Your task to perform on an android device: Go to network settings Image 0: 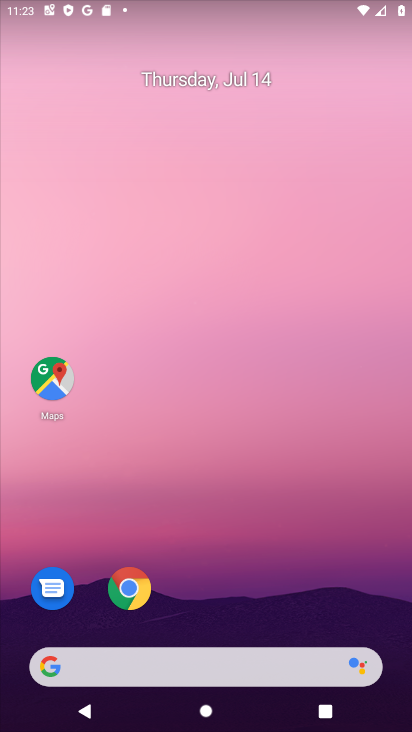
Step 0: press home button
Your task to perform on an android device: Go to network settings Image 1: 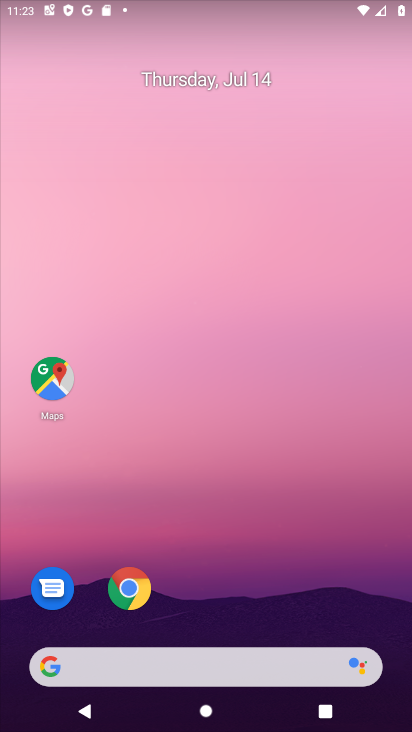
Step 1: drag from (167, 668) to (289, 141)
Your task to perform on an android device: Go to network settings Image 2: 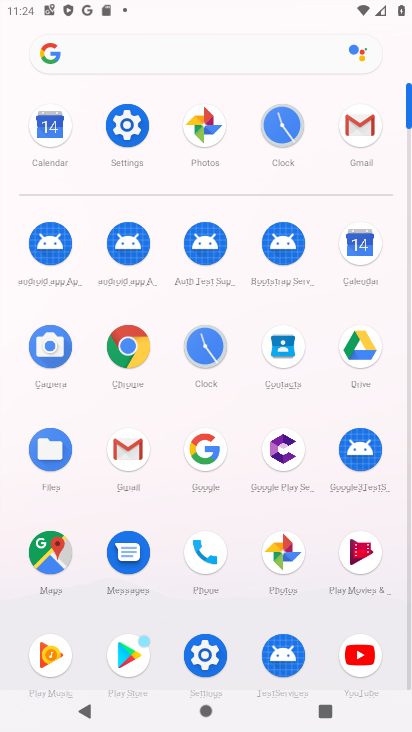
Step 2: click (120, 130)
Your task to perform on an android device: Go to network settings Image 3: 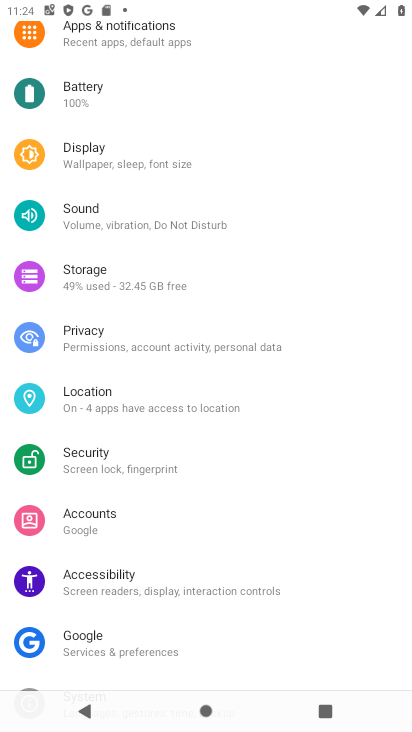
Step 3: drag from (309, 101) to (325, 499)
Your task to perform on an android device: Go to network settings Image 4: 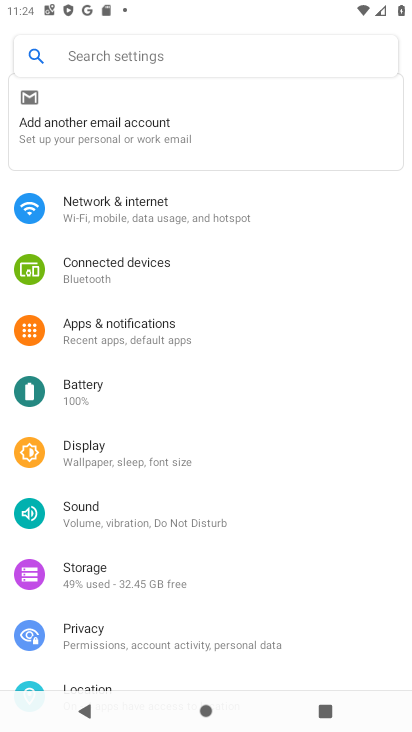
Step 4: click (144, 198)
Your task to perform on an android device: Go to network settings Image 5: 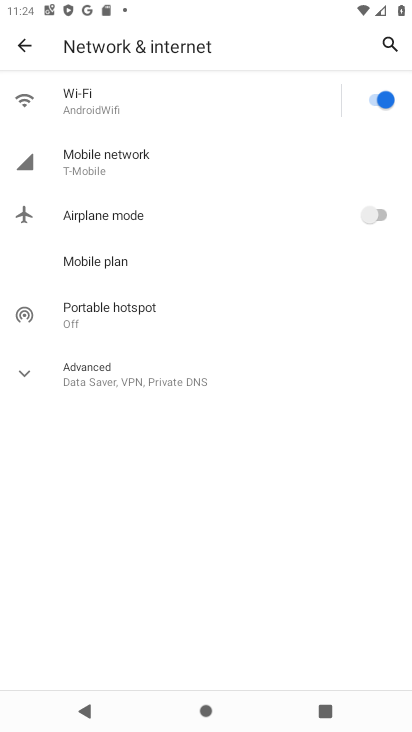
Step 5: click (108, 155)
Your task to perform on an android device: Go to network settings Image 6: 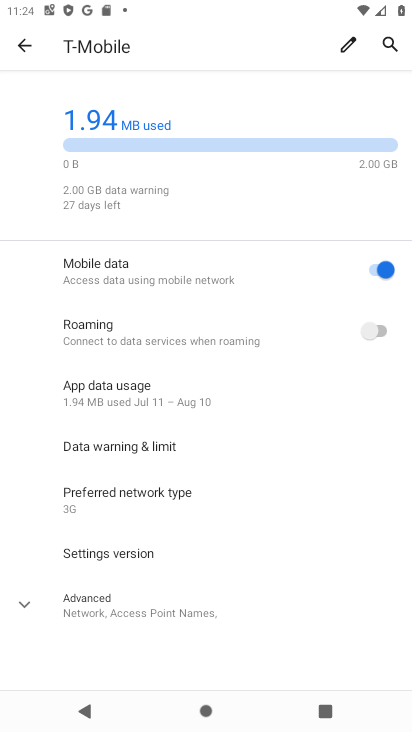
Step 6: task complete